Your task to perform on an android device: uninstall "Microsoft Excel" Image 0: 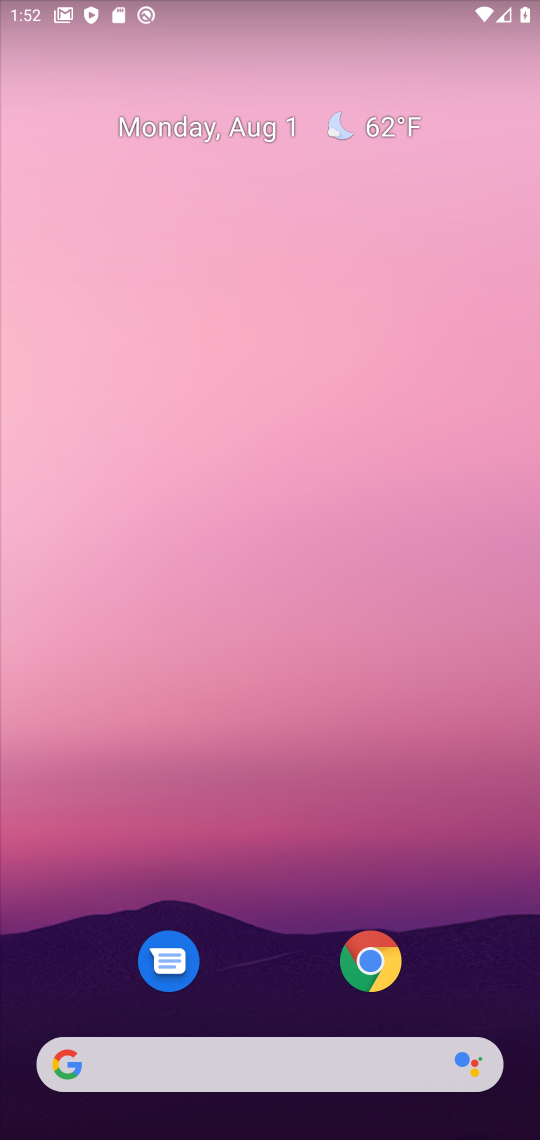
Step 0: click (330, 8)
Your task to perform on an android device: uninstall "Microsoft Excel" Image 1: 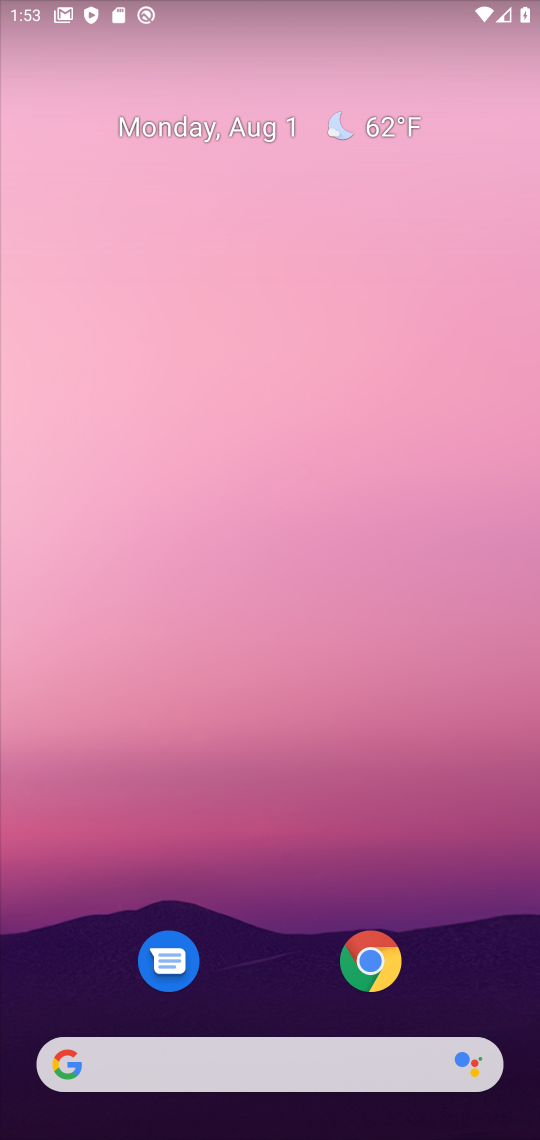
Step 1: drag from (282, 951) to (383, 47)
Your task to perform on an android device: uninstall "Microsoft Excel" Image 2: 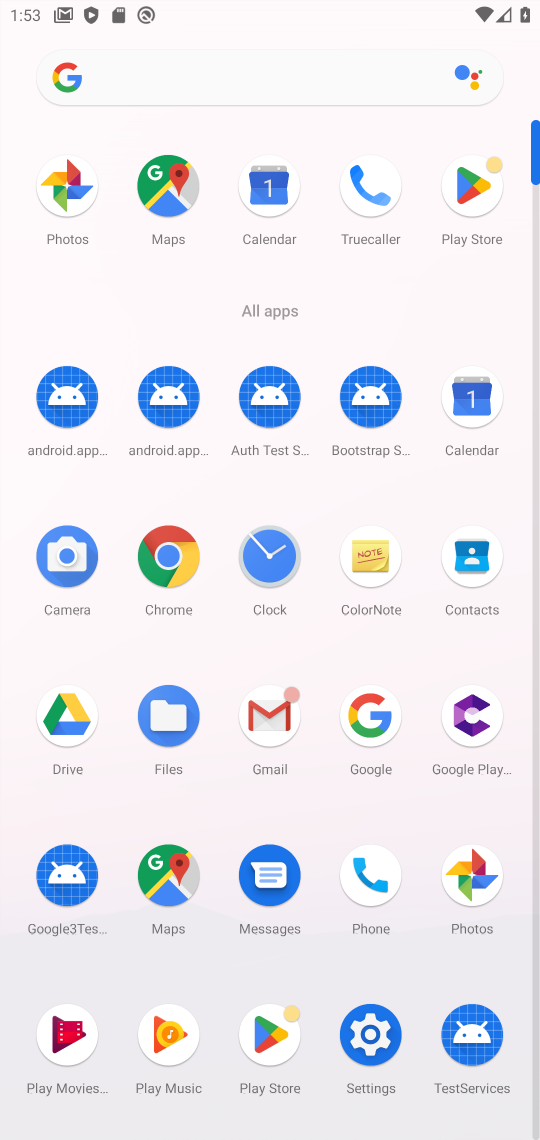
Step 2: click (473, 185)
Your task to perform on an android device: uninstall "Microsoft Excel" Image 3: 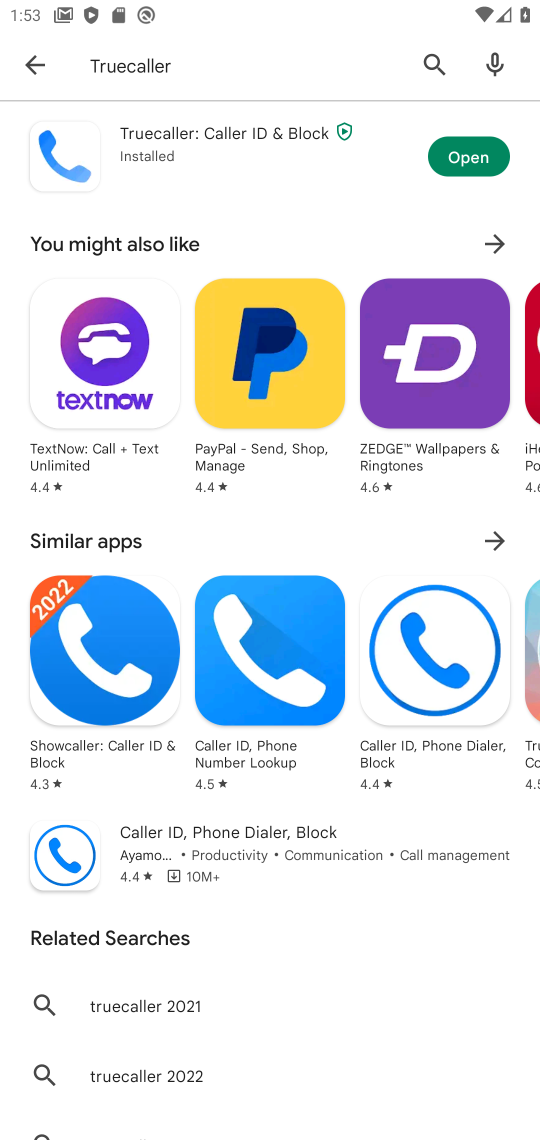
Step 3: click (304, 59)
Your task to perform on an android device: uninstall "Microsoft Excel" Image 4: 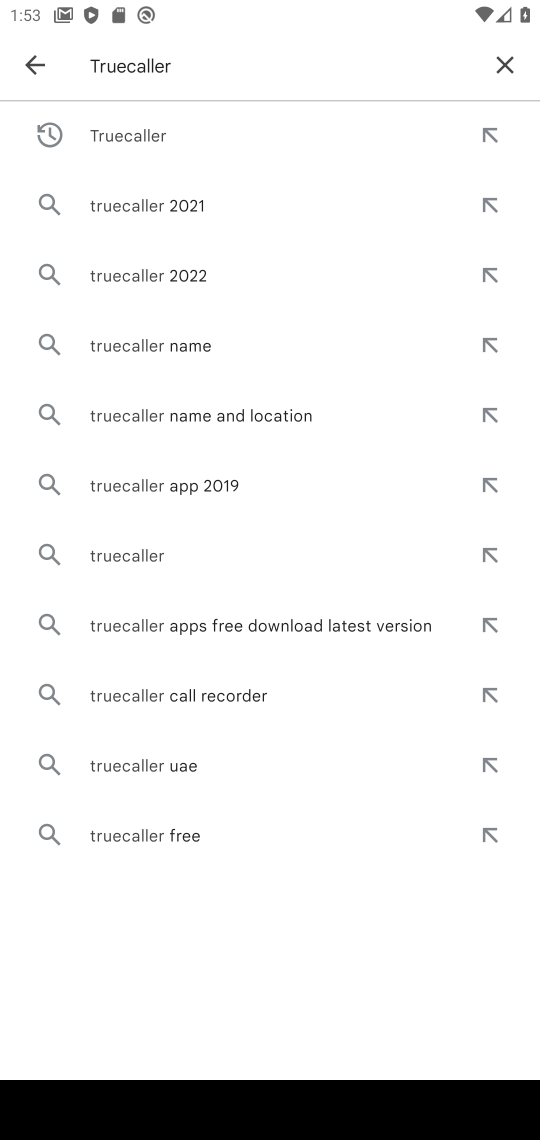
Step 4: click (499, 54)
Your task to perform on an android device: uninstall "Microsoft Excel" Image 5: 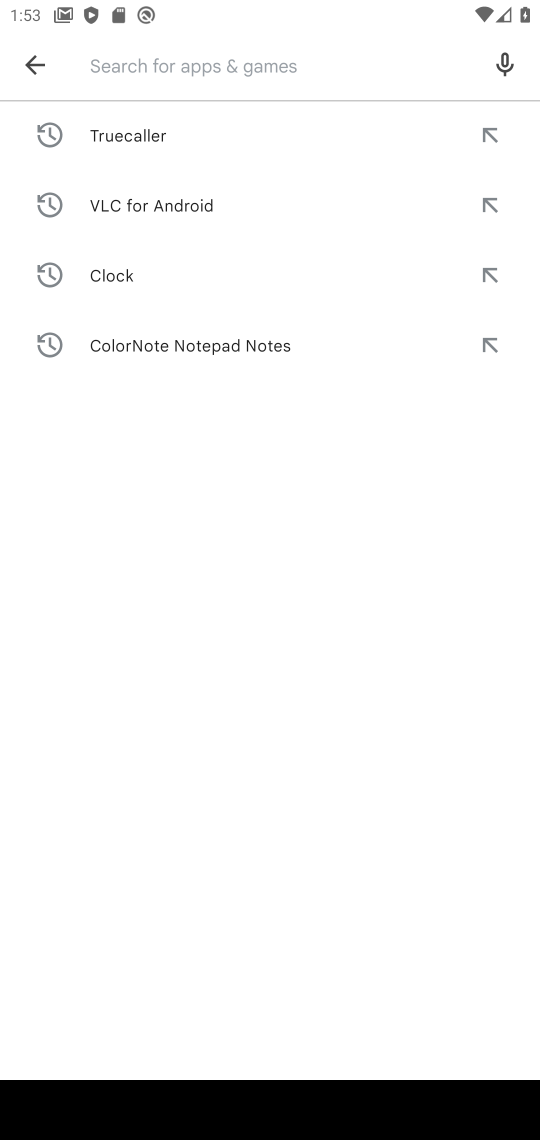
Step 5: type "Microfost Excel"
Your task to perform on an android device: uninstall "Microsoft Excel" Image 6: 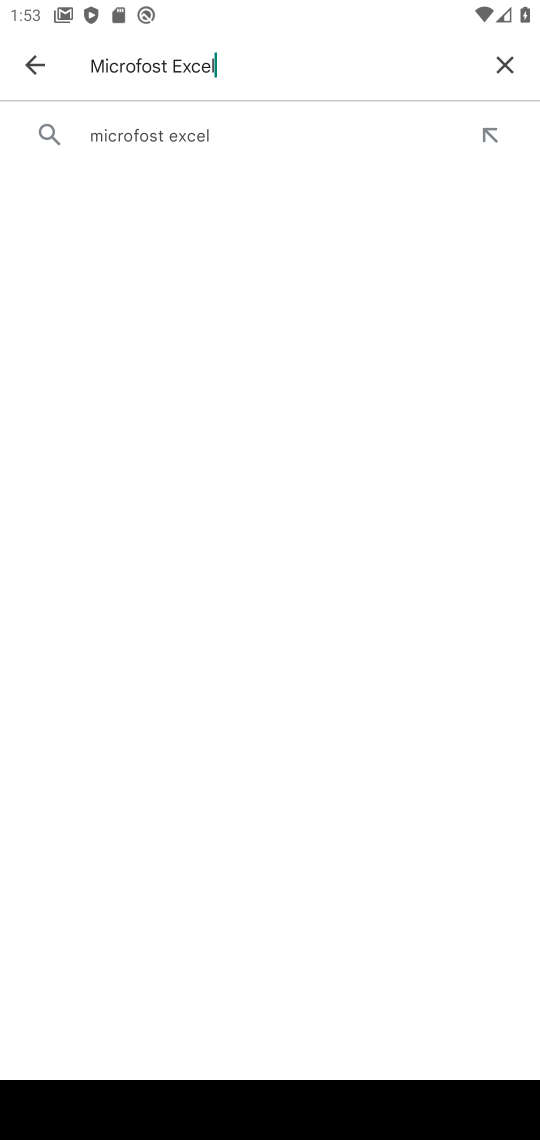
Step 6: press enter
Your task to perform on an android device: uninstall "Microsoft Excel" Image 7: 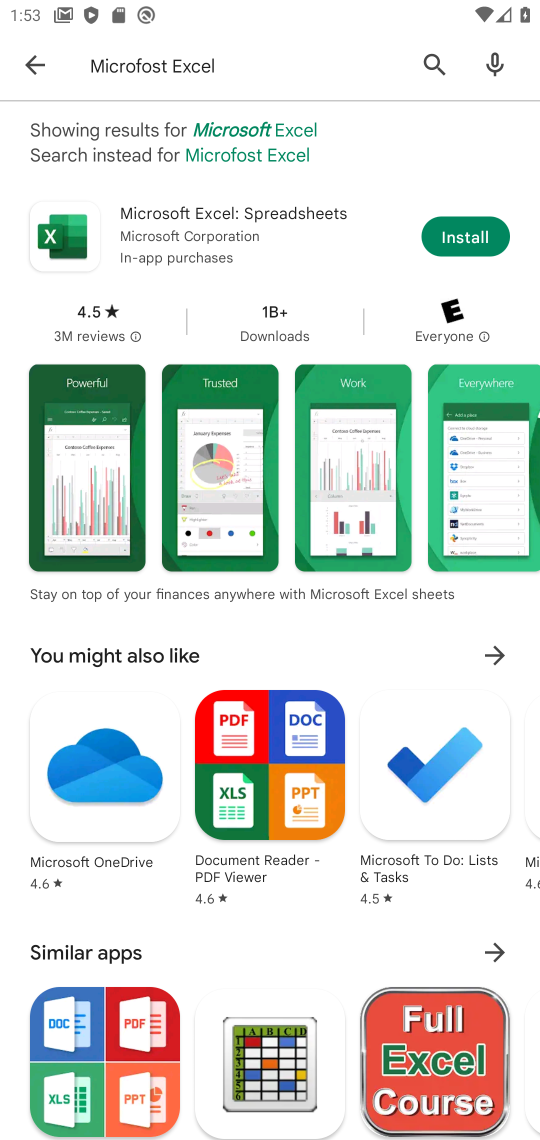
Step 7: click (162, 240)
Your task to perform on an android device: uninstall "Microsoft Excel" Image 8: 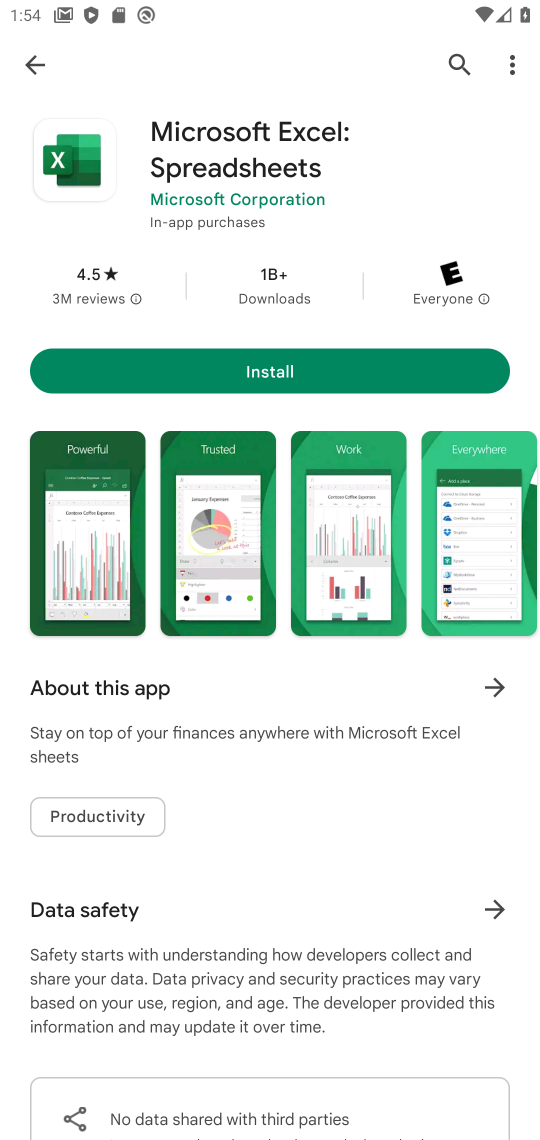
Step 8: task complete